Your task to perform on an android device: change timer sound Image 0: 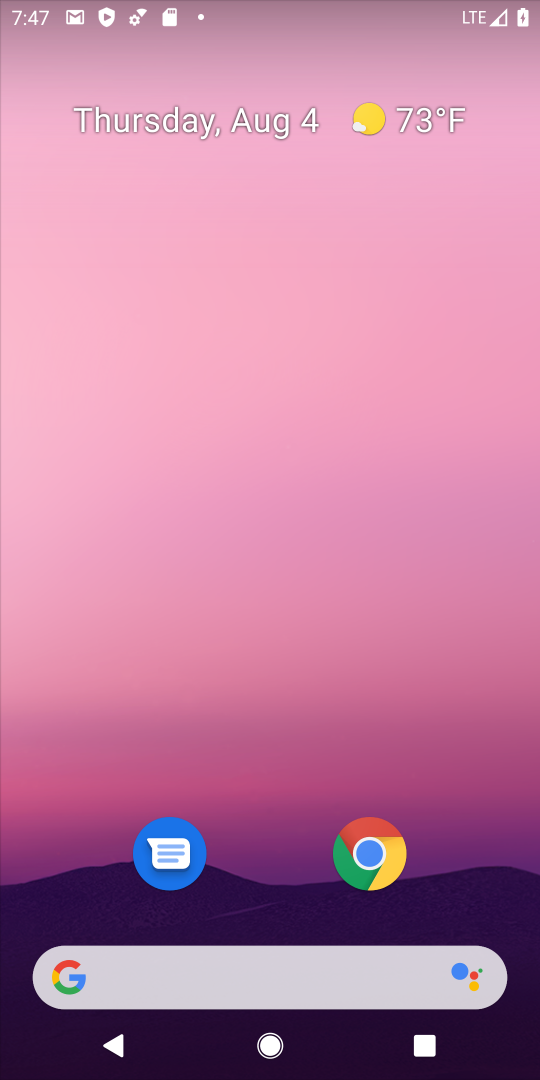
Step 0: press home button
Your task to perform on an android device: change timer sound Image 1: 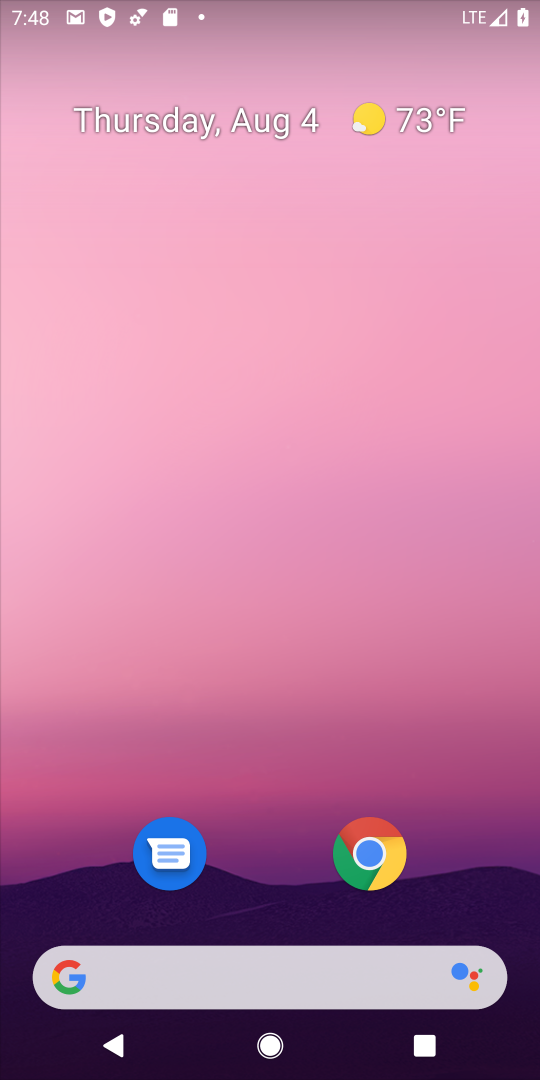
Step 1: drag from (308, 685) to (366, 390)
Your task to perform on an android device: change timer sound Image 2: 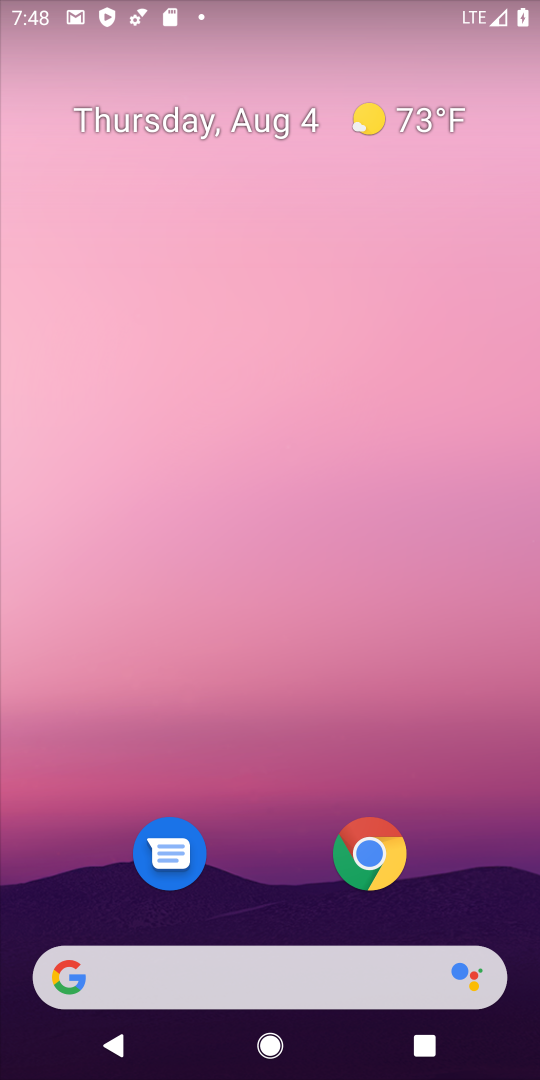
Step 2: drag from (221, 867) to (242, 178)
Your task to perform on an android device: change timer sound Image 3: 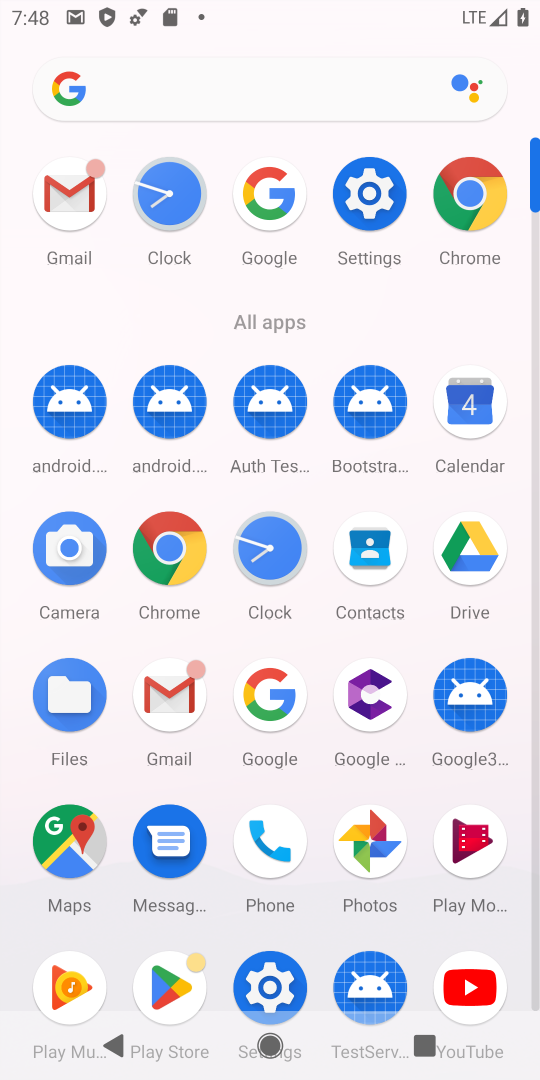
Step 3: click (360, 200)
Your task to perform on an android device: change timer sound Image 4: 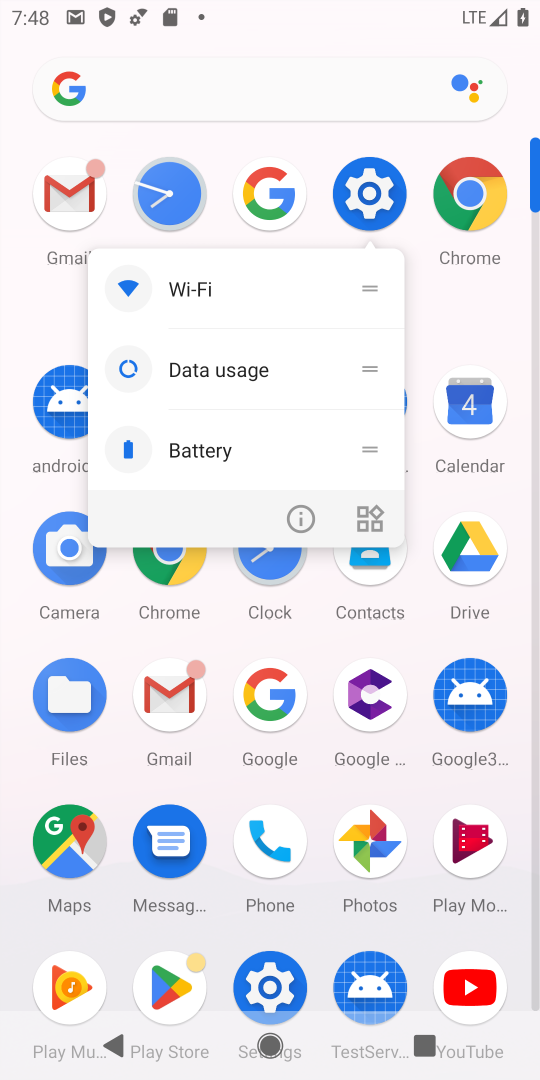
Step 4: click (175, 175)
Your task to perform on an android device: change timer sound Image 5: 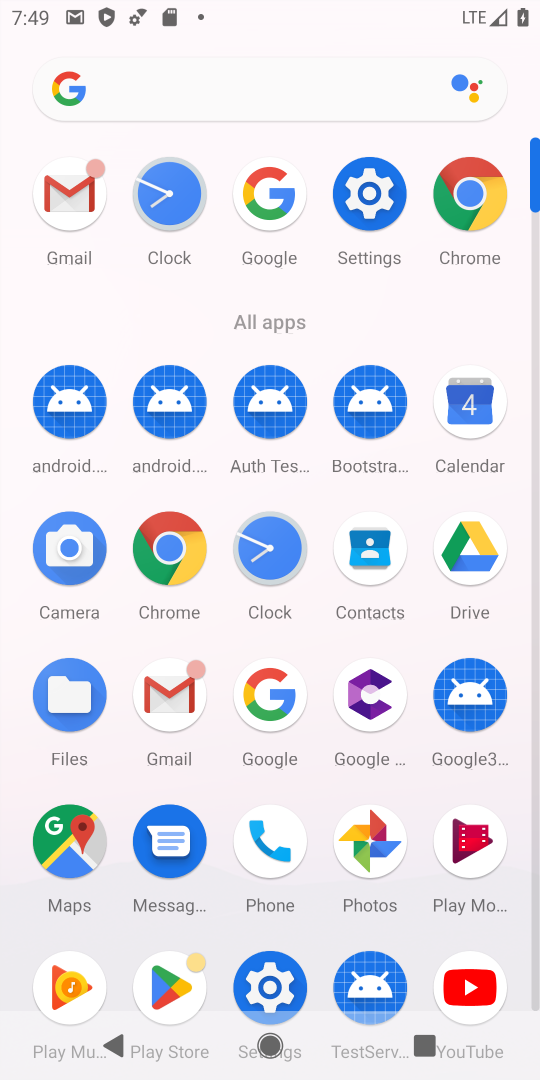
Step 5: click (161, 199)
Your task to perform on an android device: change timer sound Image 6: 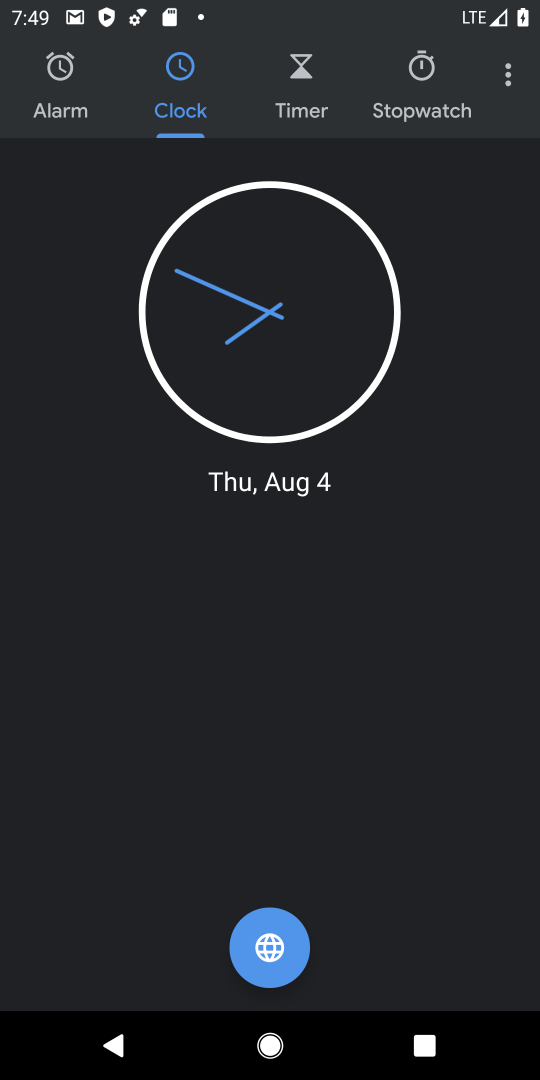
Step 6: click (504, 75)
Your task to perform on an android device: change timer sound Image 7: 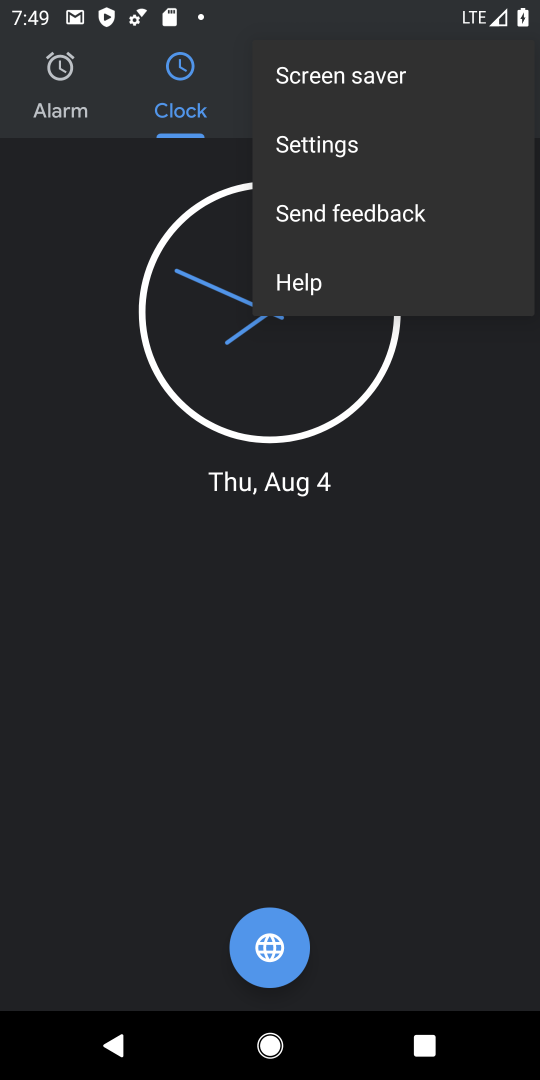
Step 7: click (317, 144)
Your task to perform on an android device: change timer sound Image 8: 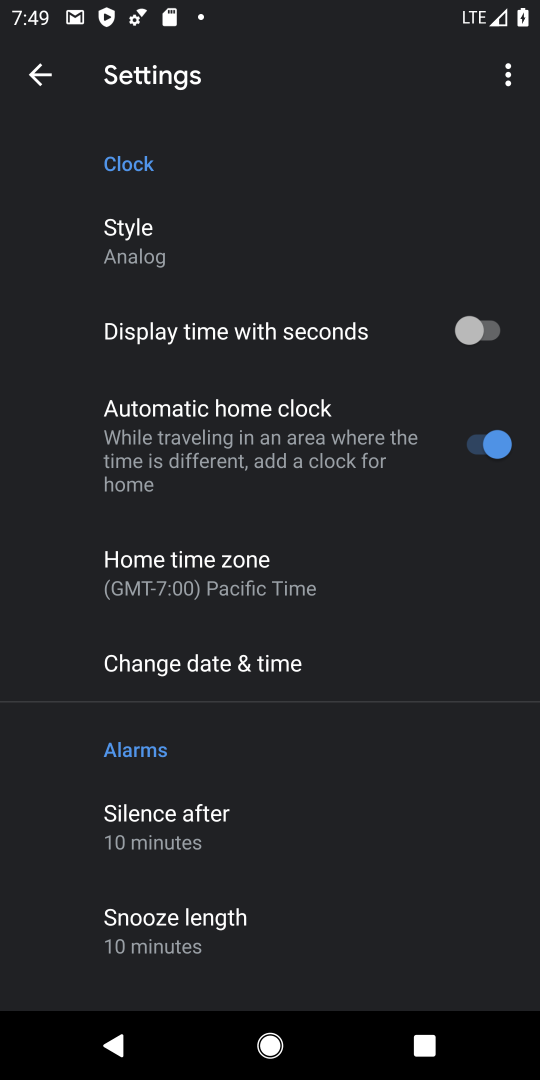
Step 8: drag from (309, 655) to (294, 200)
Your task to perform on an android device: change timer sound Image 9: 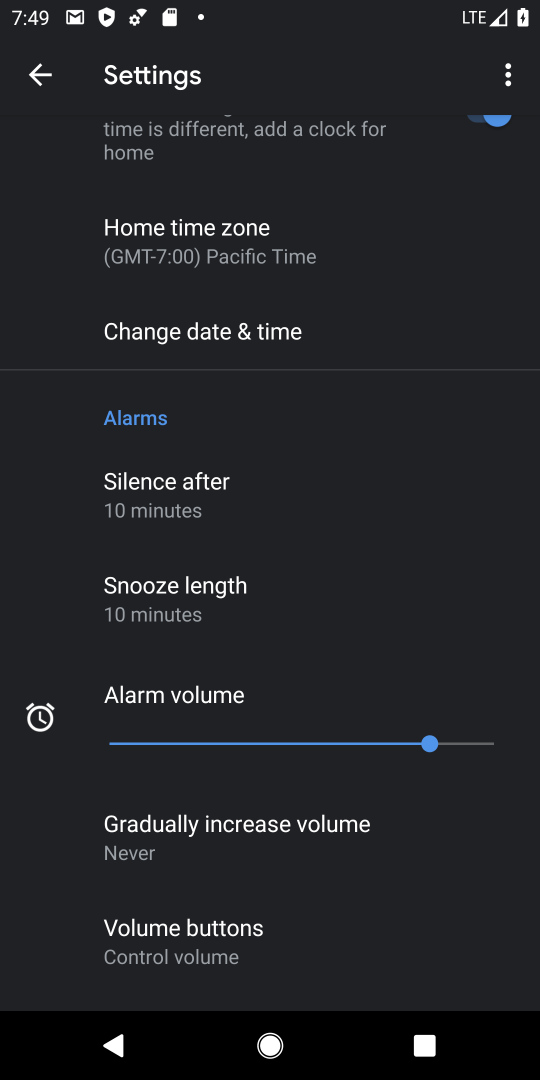
Step 9: drag from (328, 743) to (316, 241)
Your task to perform on an android device: change timer sound Image 10: 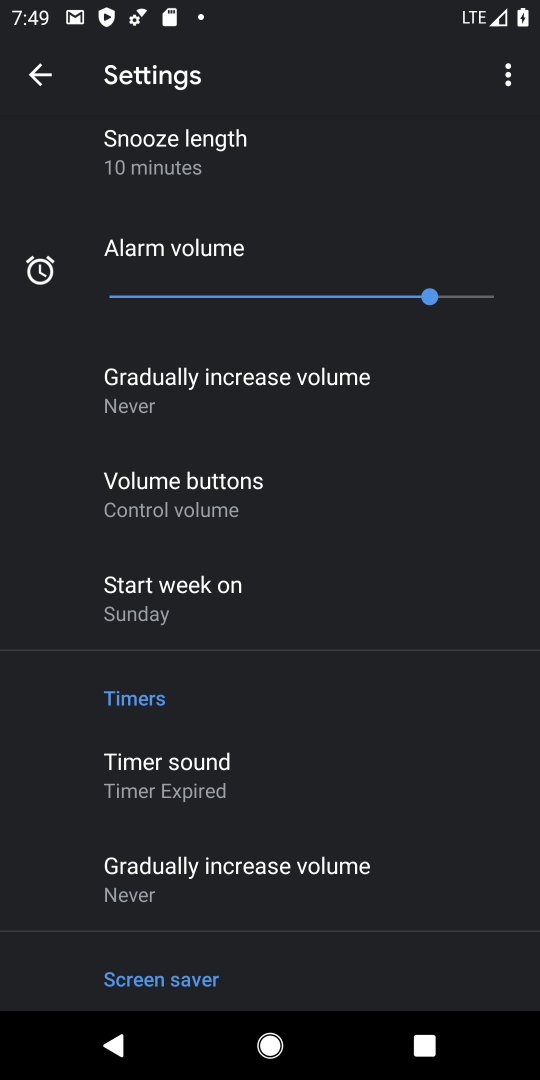
Step 10: click (127, 776)
Your task to perform on an android device: change timer sound Image 11: 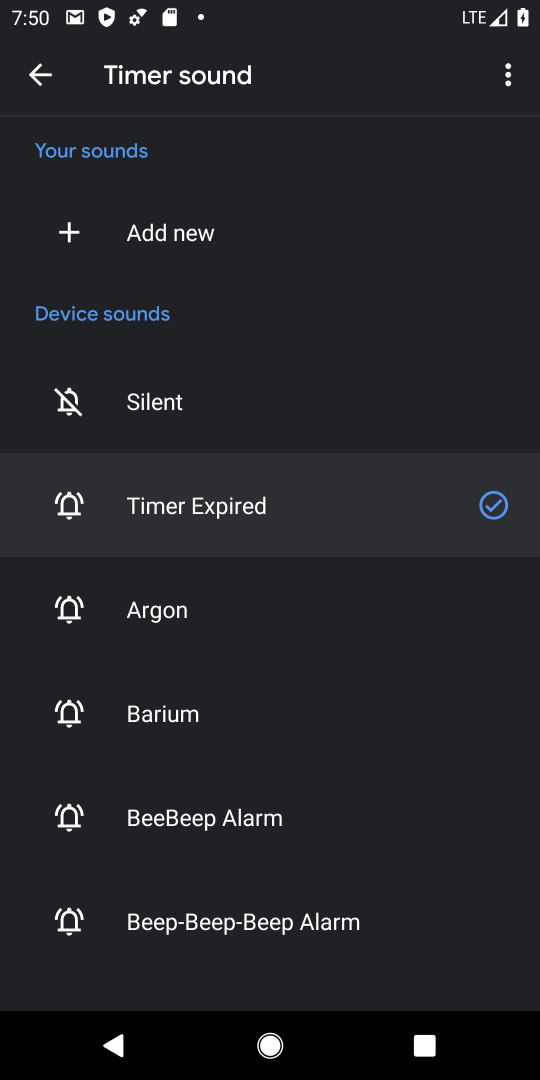
Step 11: click (131, 593)
Your task to perform on an android device: change timer sound Image 12: 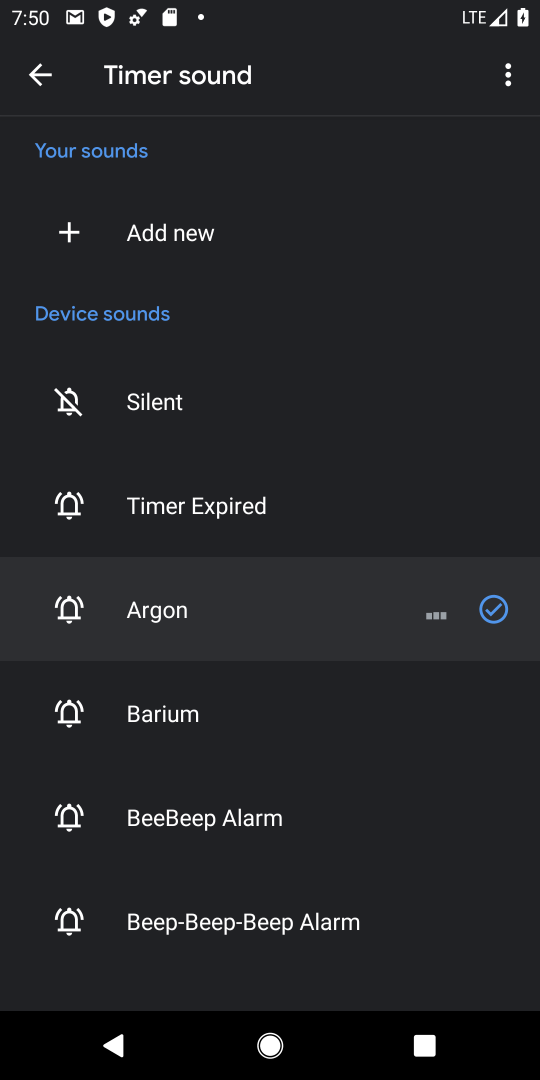
Step 12: task complete